Your task to perform on an android device: delete the emails in spam in the gmail app Image 0: 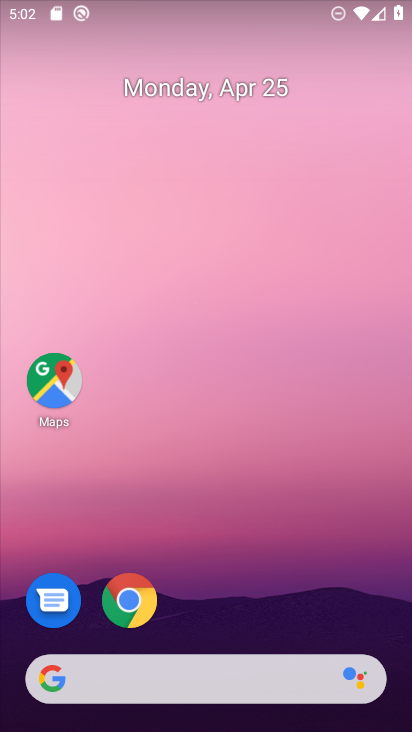
Step 0: drag from (220, 214) to (188, 44)
Your task to perform on an android device: delete the emails in spam in the gmail app Image 1: 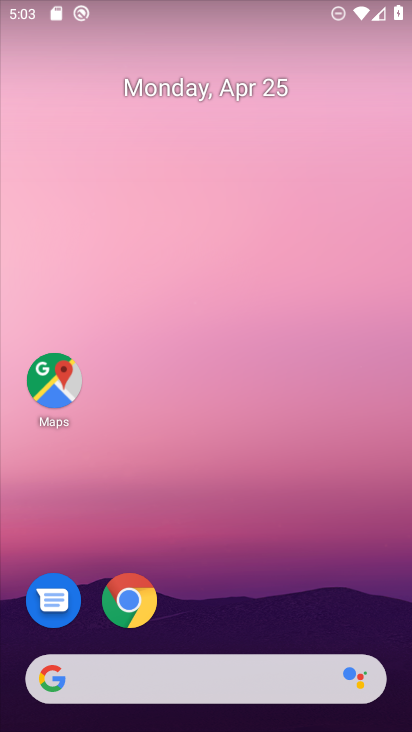
Step 1: drag from (268, 504) to (118, 5)
Your task to perform on an android device: delete the emails in spam in the gmail app Image 2: 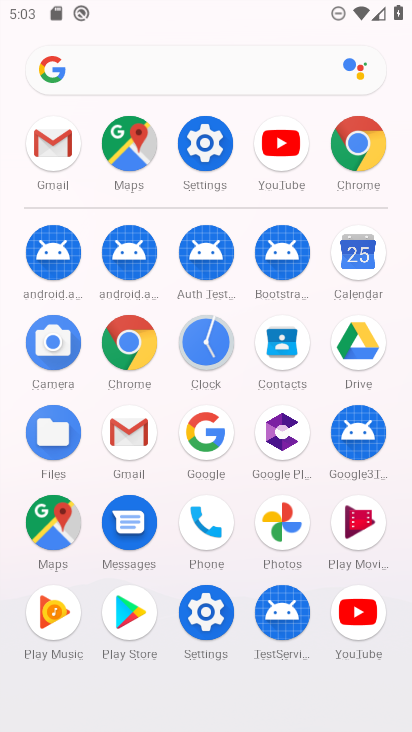
Step 2: click (127, 428)
Your task to perform on an android device: delete the emails in spam in the gmail app Image 3: 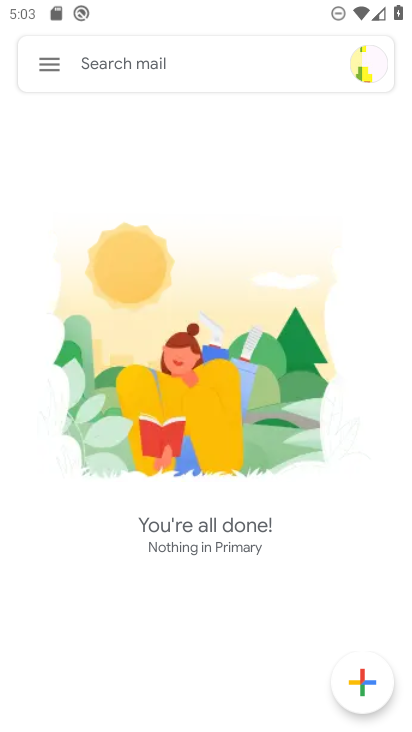
Step 3: click (45, 63)
Your task to perform on an android device: delete the emails in spam in the gmail app Image 4: 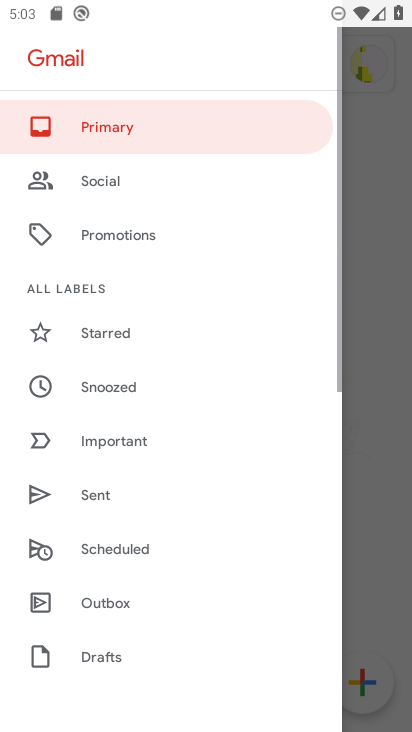
Step 4: drag from (176, 546) to (218, 134)
Your task to perform on an android device: delete the emails in spam in the gmail app Image 5: 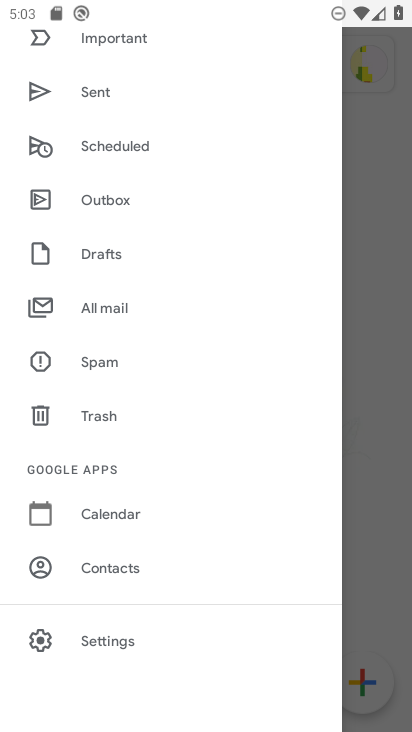
Step 5: click (128, 302)
Your task to perform on an android device: delete the emails in spam in the gmail app Image 6: 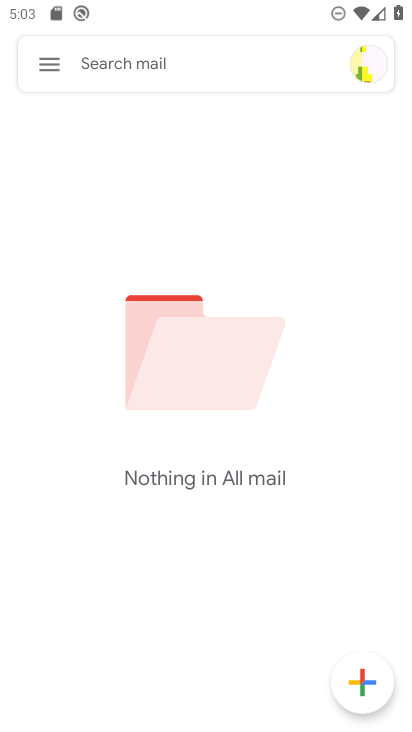
Step 6: click (40, 58)
Your task to perform on an android device: delete the emails in spam in the gmail app Image 7: 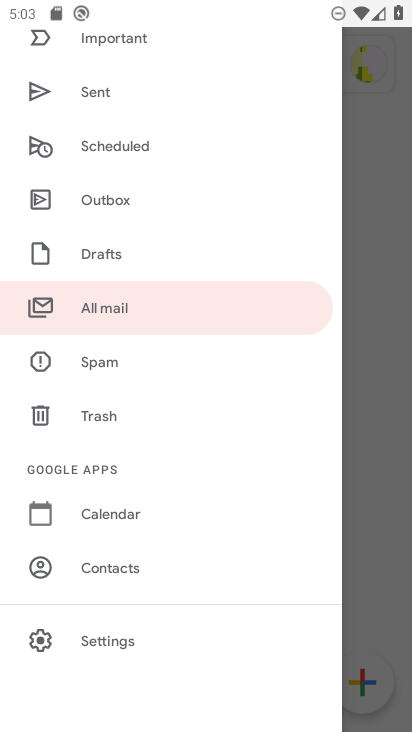
Step 7: click (129, 360)
Your task to perform on an android device: delete the emails in spam in the gmail app Image 8: 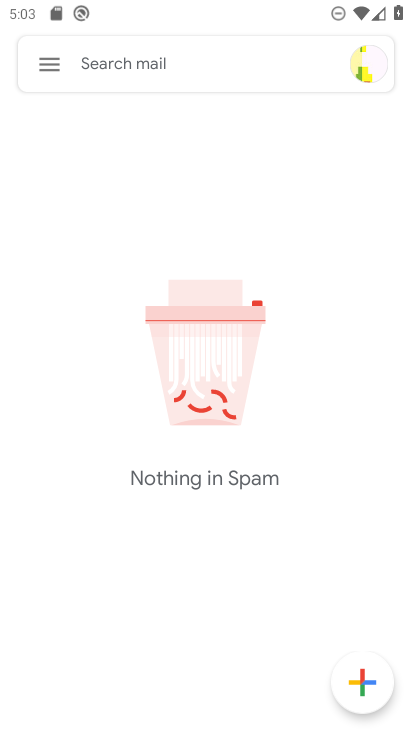
Step 8: task complete